Your task to perform on an android device: change keyboard looks Image 0: 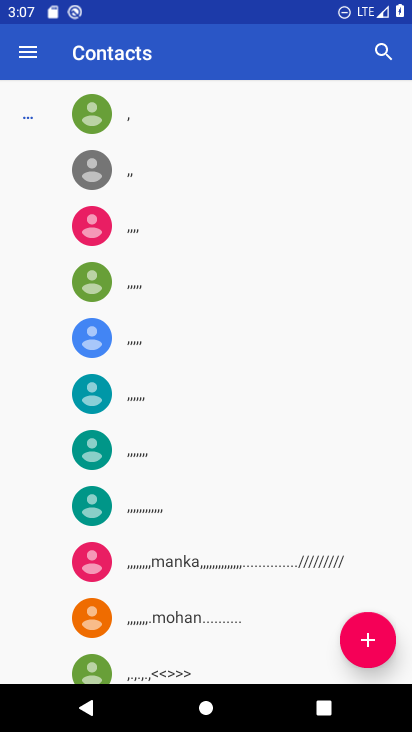
Step 0: press home button
Your task to perform on an android device: change keyboard looks Image 1: 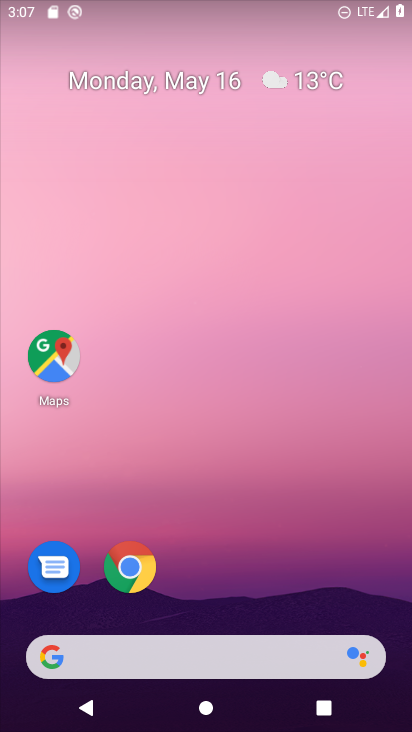
Step 1: drag from (336, 584) to (299, 0)
Your task to perform on an android device: change keyboard looks Image 2: 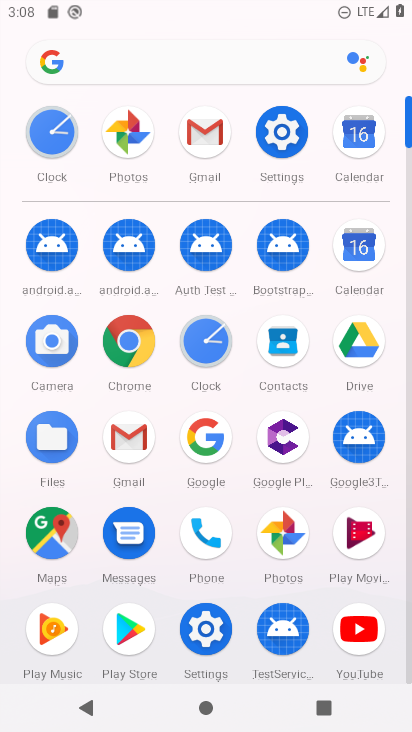
Step 2: drag from (253, 555) to (247, 198)
Your task to perform on an android device: change keyboard looks Image 3: 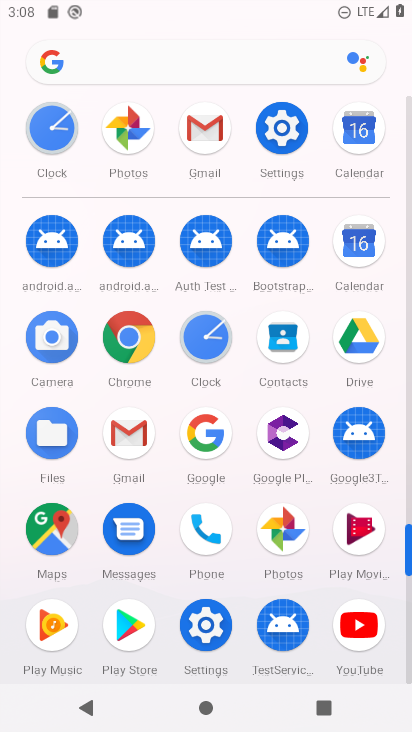
Step 3: click (211, 620)
Your task to perform on an android device: change keyboard looks Image 4: 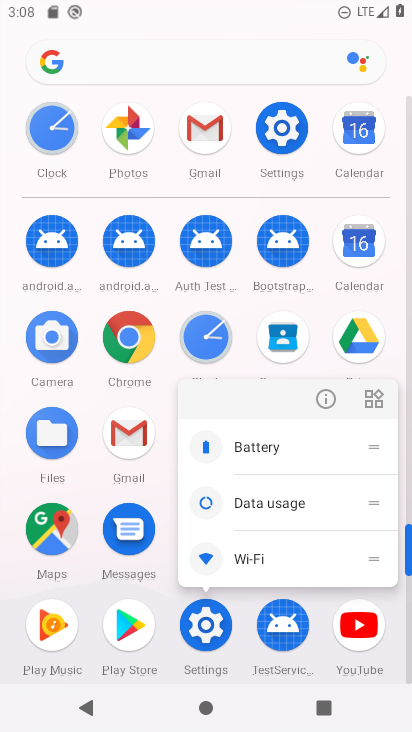
Step 4: click (194, 634)
Your task to perform on an android device: change keyboard looks Image 5: 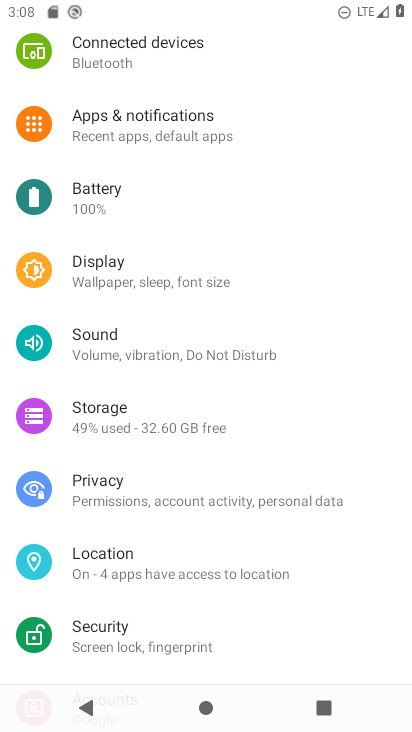
Step 5: drag from (204, 606) to (180, 130)
Your task to perform on an android device: change keyboard looks Image 6: 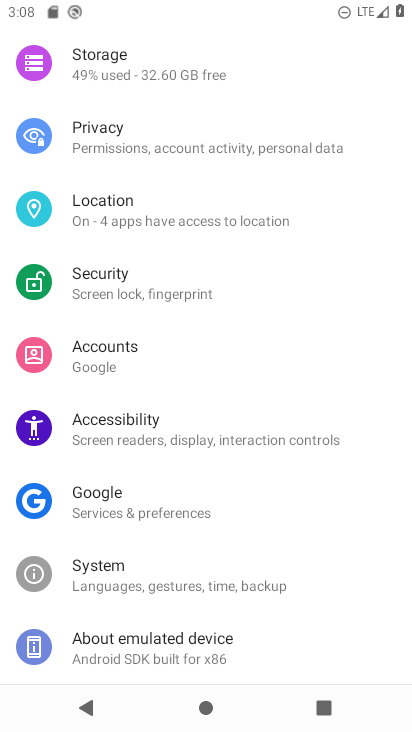
Step 6: click (132, 580)
Your task to perform on an android device: change keyboard looks Image 7: 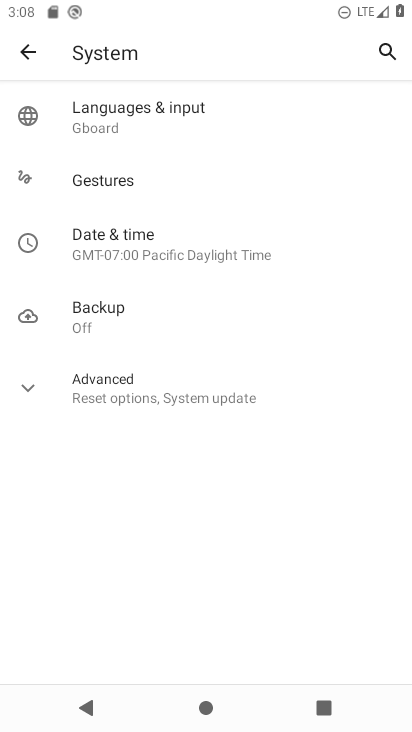
Step 7: click (112, 90)
Your task to perform on an android device: change keyboard looks Image 8: 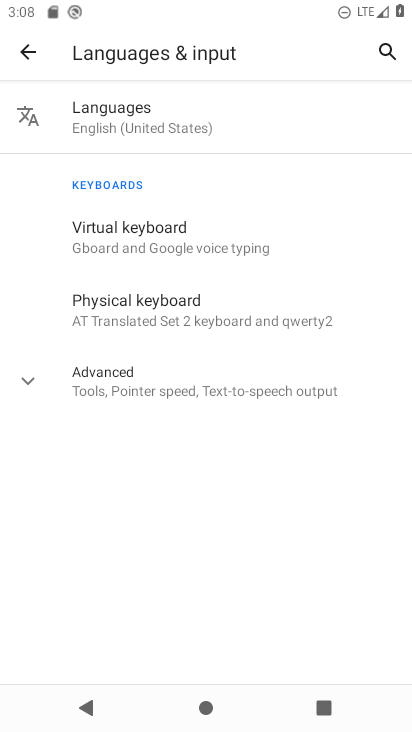
Step 8: click (120, 221)
Your task to perform on an android device: change keyboard looks Image 9: 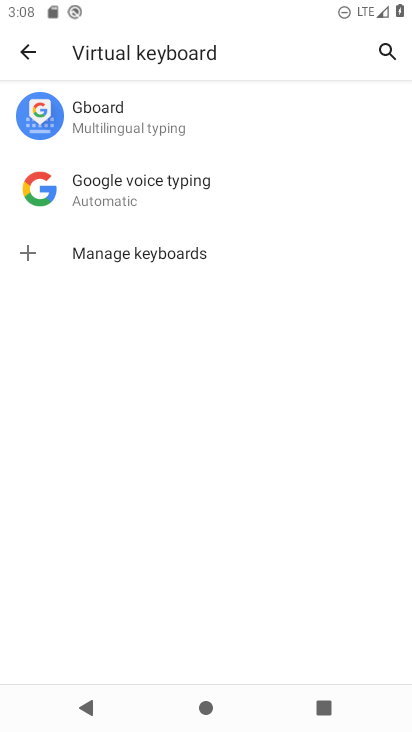
Step 9: click (136, 129)
Your task to perform on an android device: change keyboard looks Image 10: 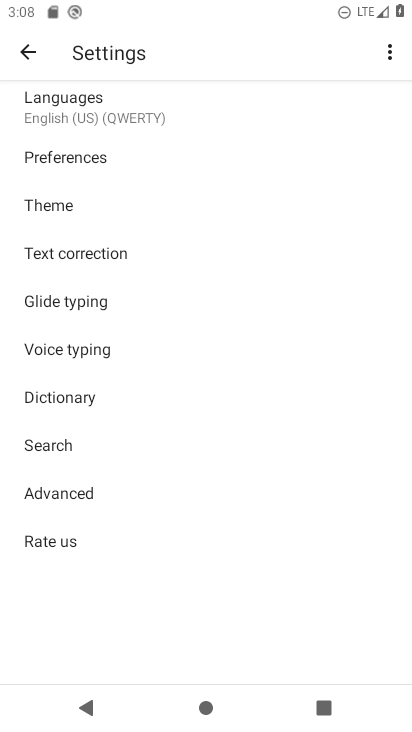
Step 10: click (101, 206)
Your task to perform on an android device: change keyboard looks Image 11: 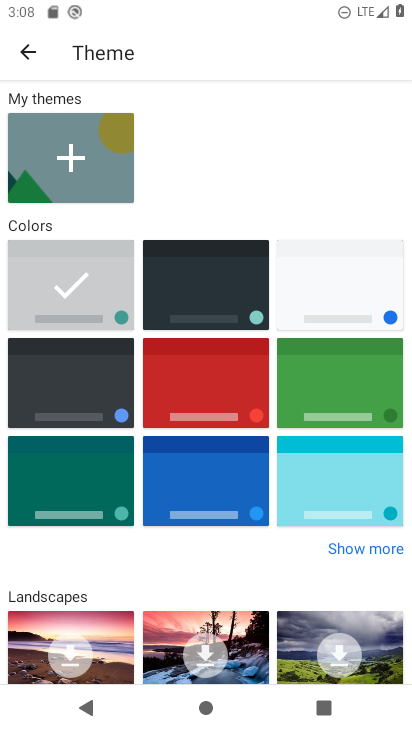
Step 11: click (161, 375)
Your task to perform on an android device: change keyboard looks Image 12: 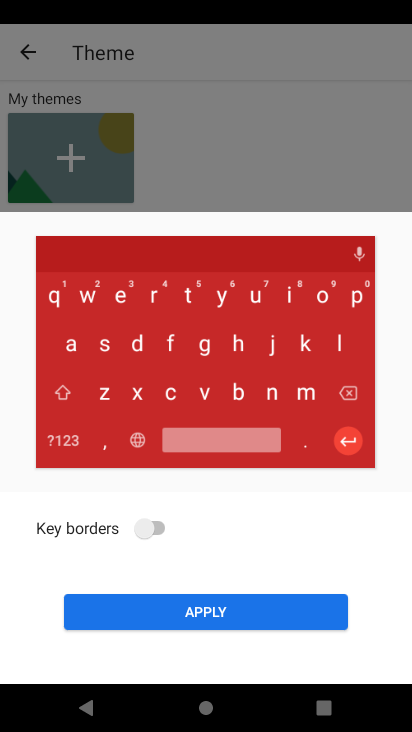
Step 12: click (293, 613)
Your task to perform on an android device: change keyboard looks Image 13: 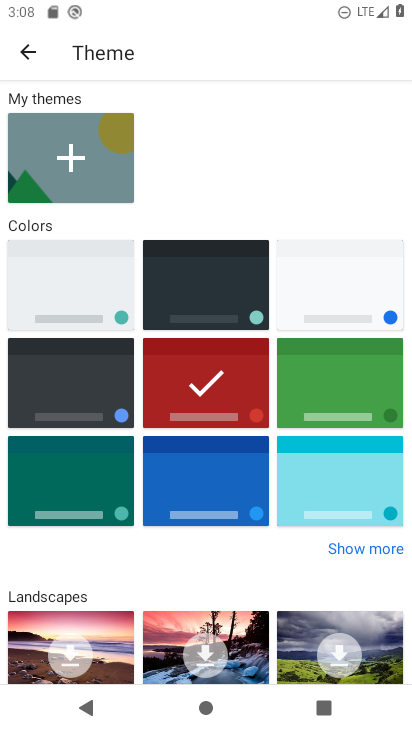
Step 13: task complete